Your task to perform on an android device: What is the speed of a bicycle? Image 0: 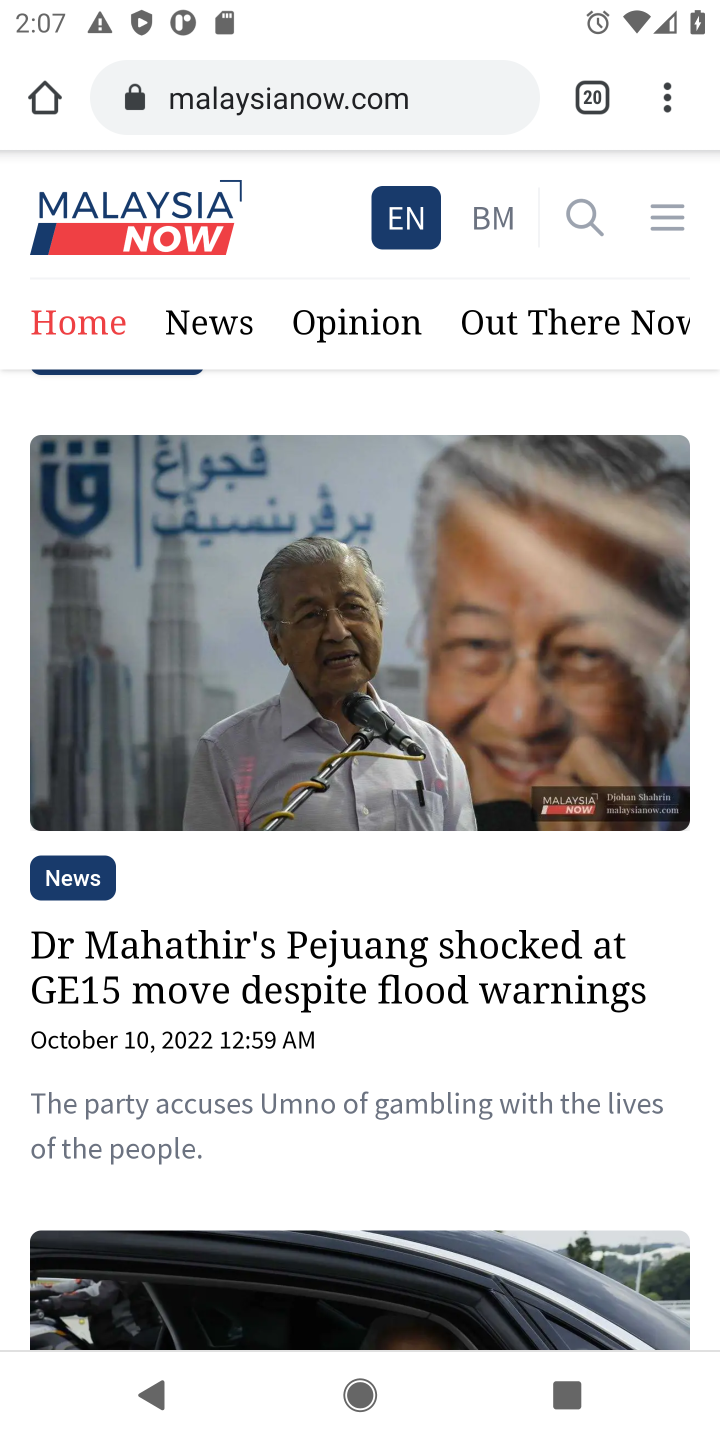
Step 0: press home button
Your task to perform on an android device: What is the speed of a bicycle? Image 1: 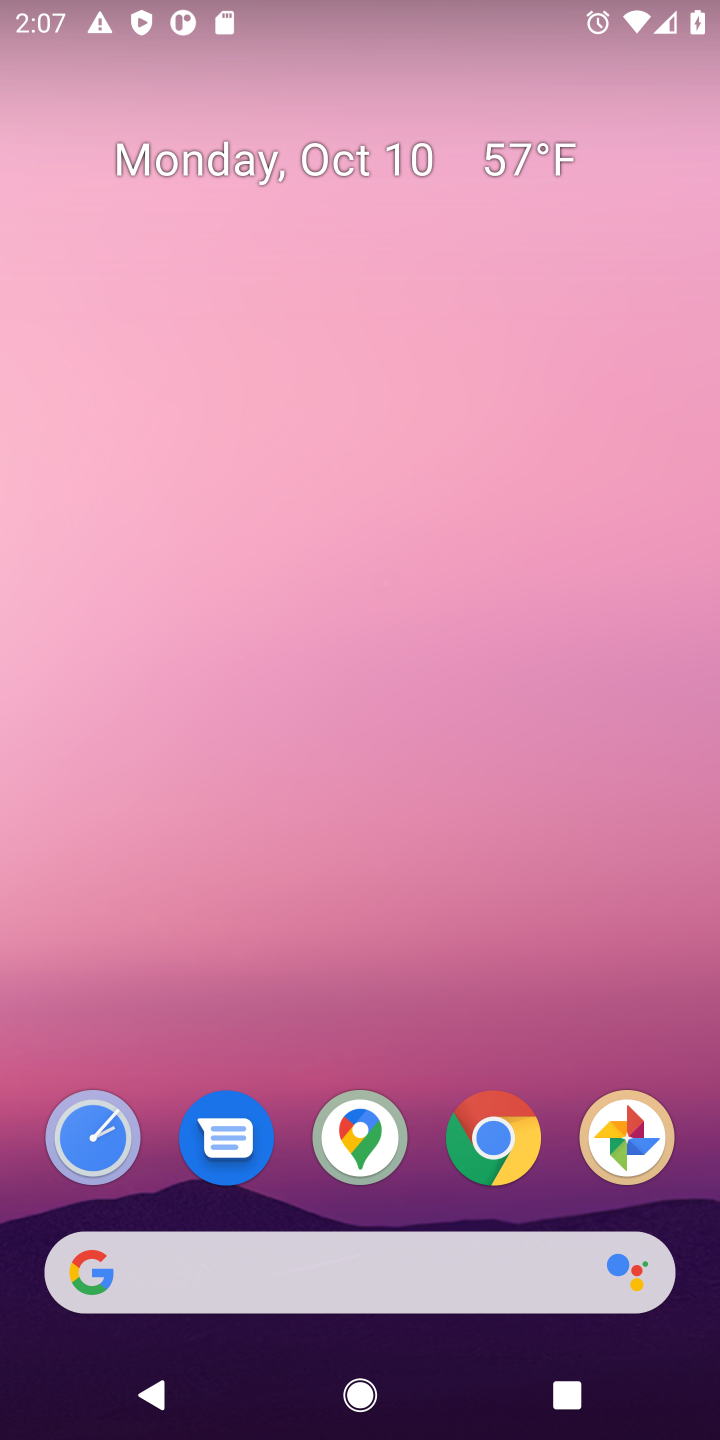
Step 1: click (311, 1261)
Your task to perform on an android device: What is the speed of a bicycle? Image 2: 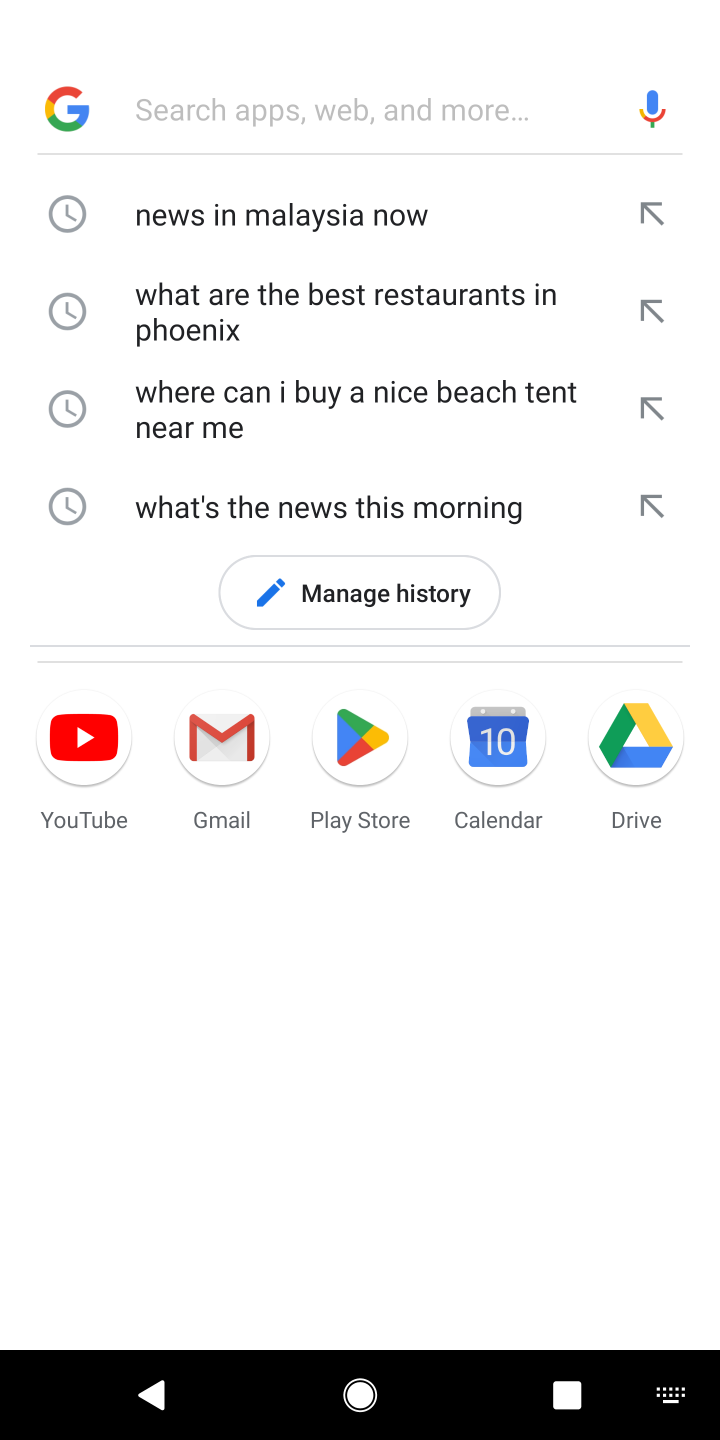
Step 2: type "what is the speed of a bicycle?"
Your task to perform on an android device: What is the speed of a bicycle? Image 3: 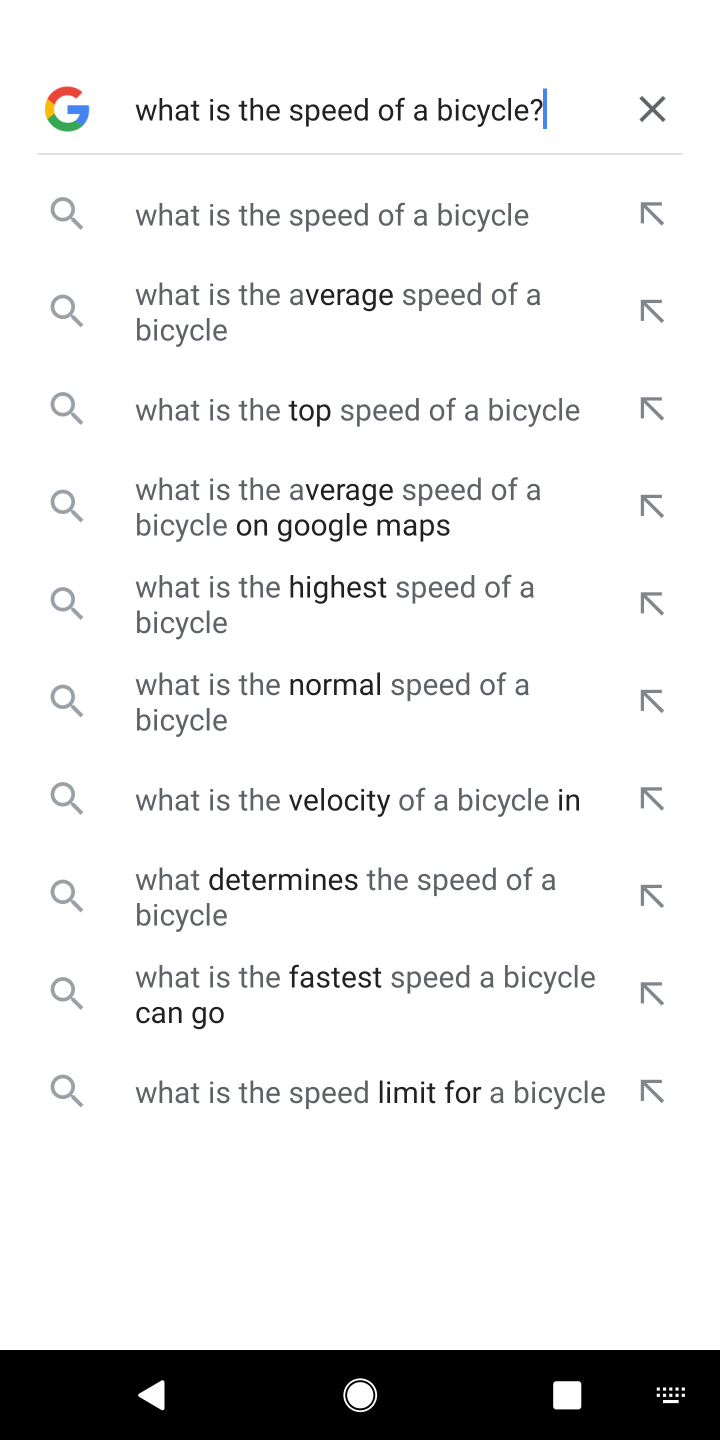
Step 3: click (294, 207)
Your task to perform on an android device: What is the speed of a bicycle? Image 4: 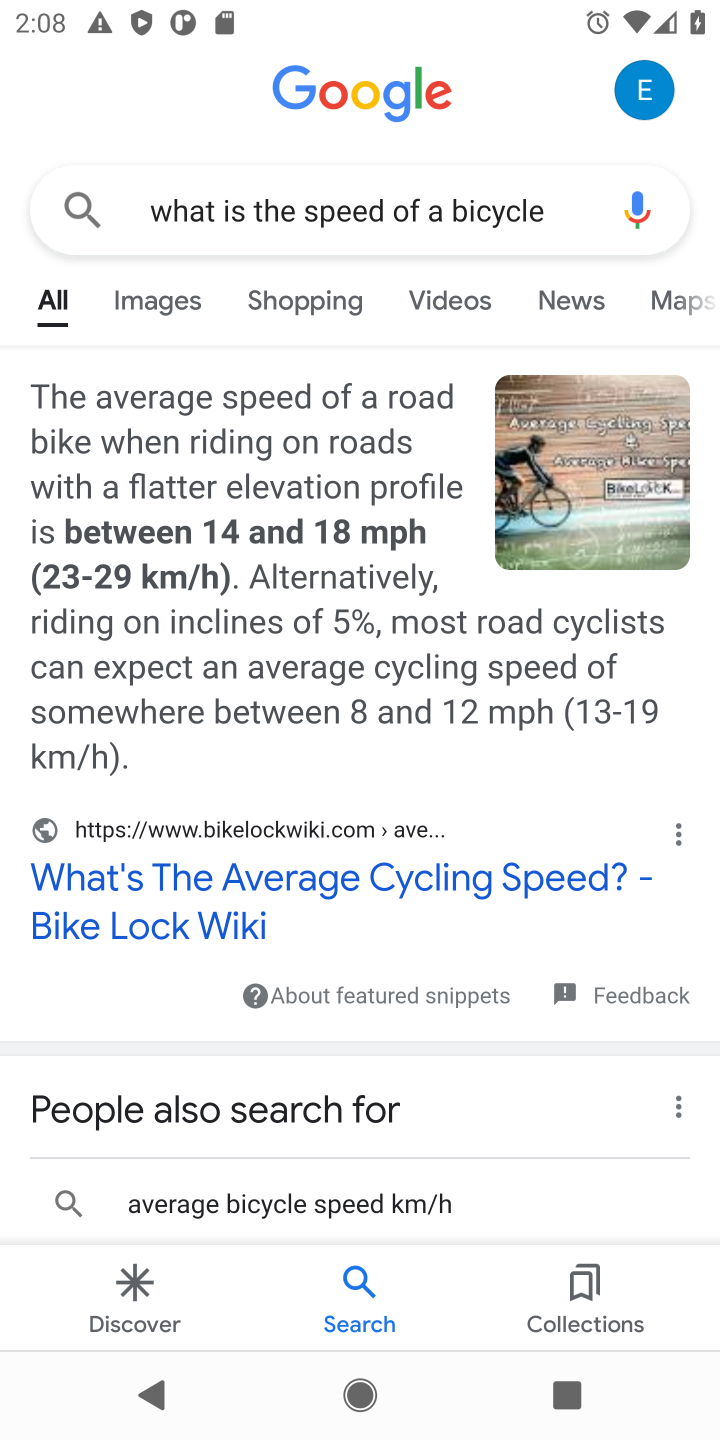
Step 4: click (278, 701)
Your task to perform on an android device: What is the speed of a bicycle? Image 5: 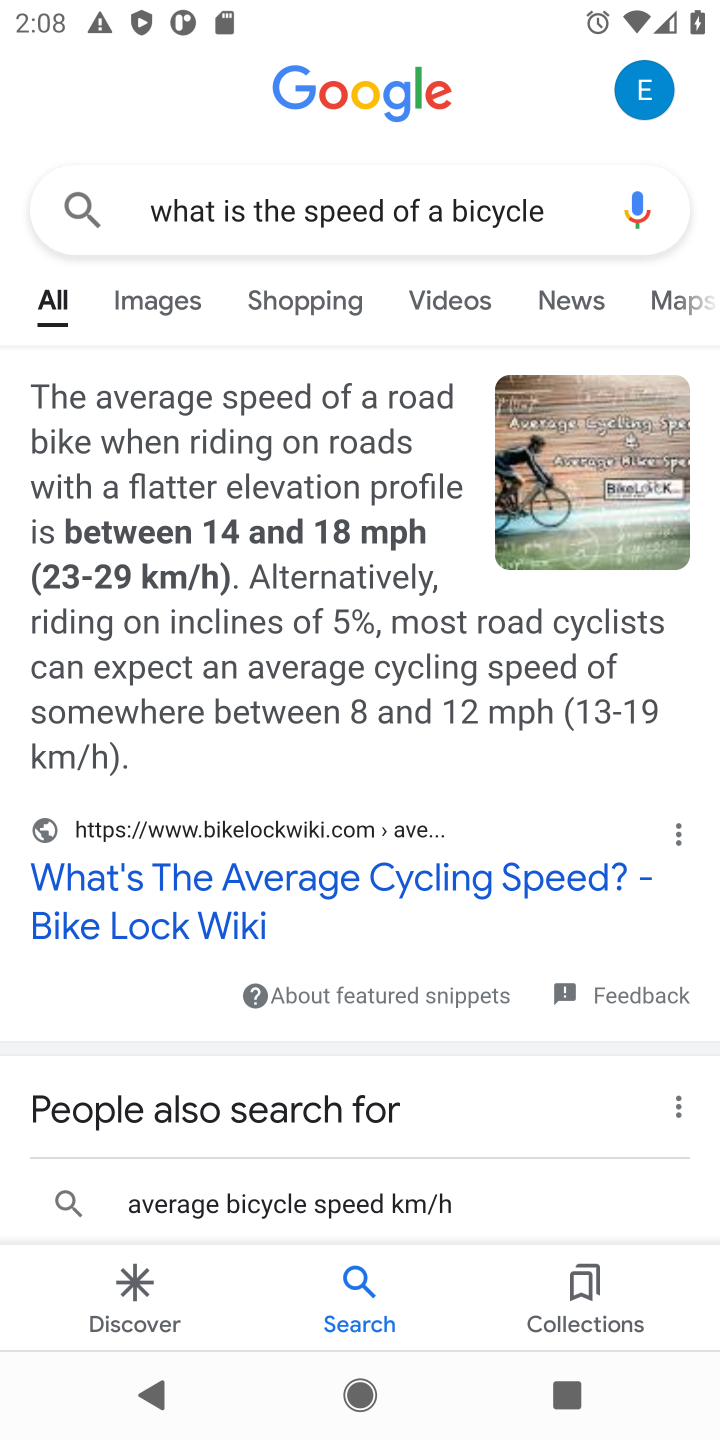
Step 5: click (237, 887)
Your task to perform on an android device: What is the speed of a bicycle? Image 6: 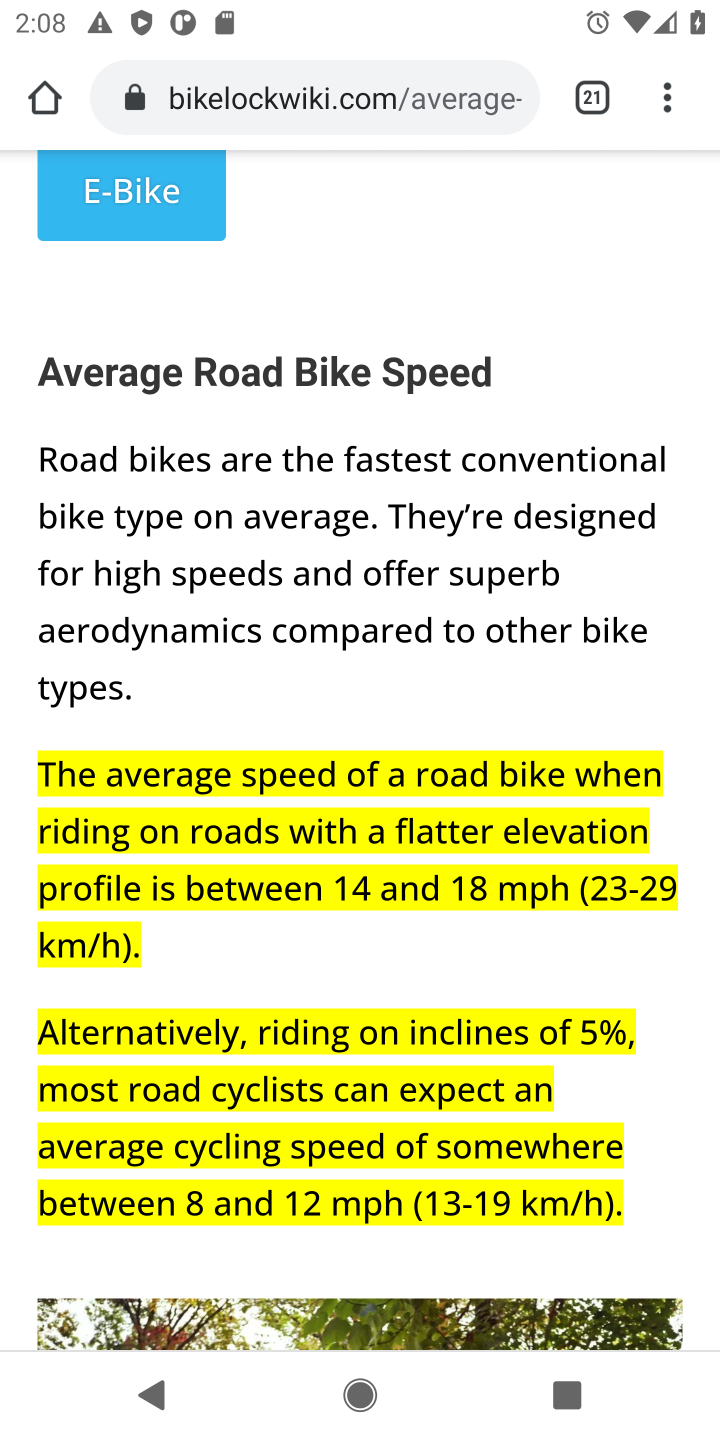
Step 6: drag from (445, 687) to (436, 442)
Your task to perform on an android device: What is the speed of a bicycle? Image 7: 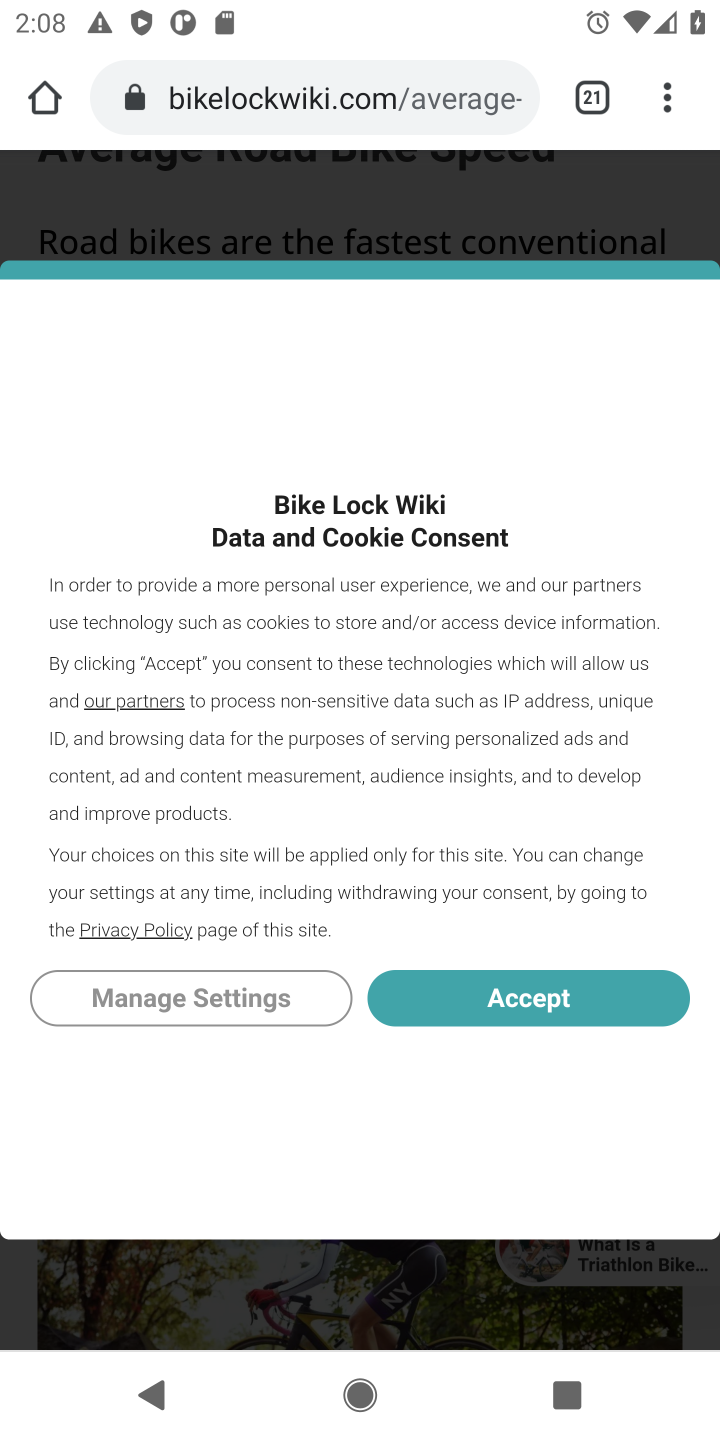
Step 7: click (424, 996)
Your task to perform on an android device: What is the speed of a bicycle? Image 8: 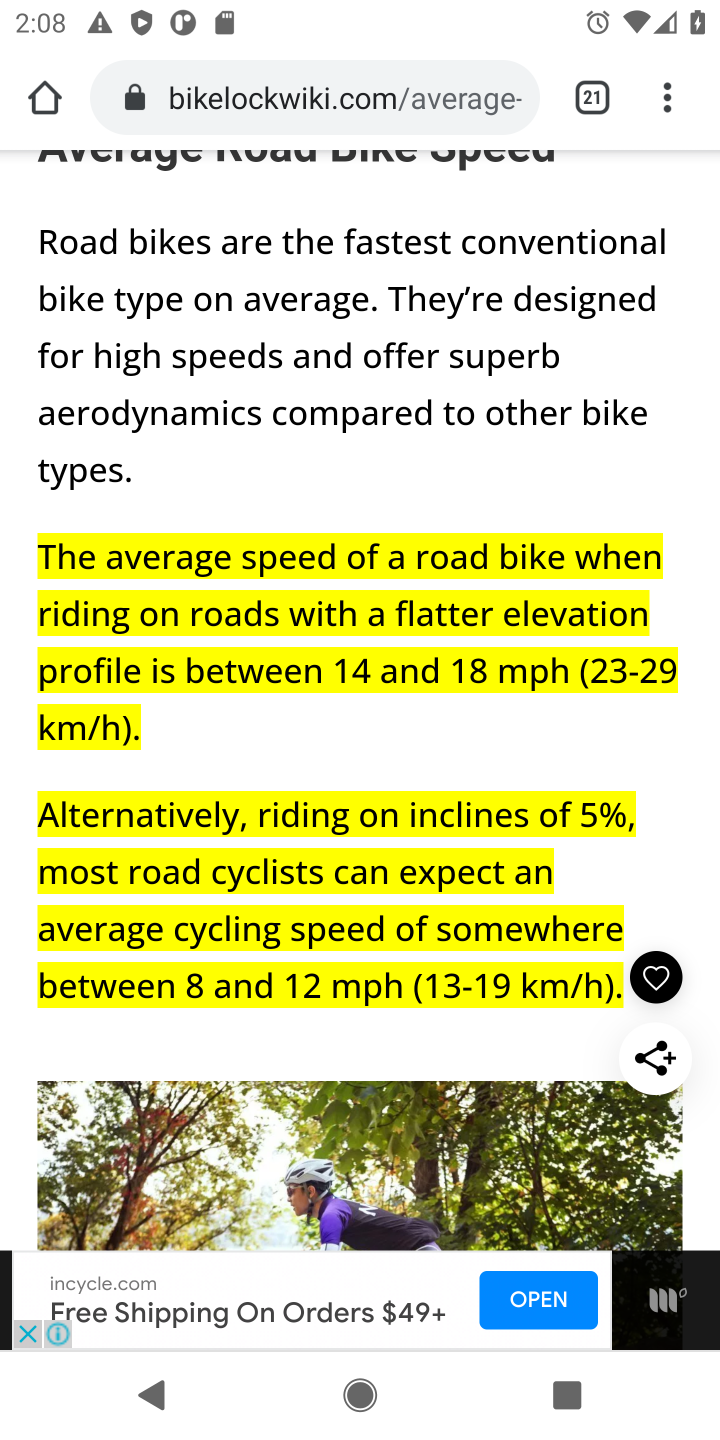
Step 8: task complete